Your task to perform on an android device: turn on showing notifications on the lock screen Image 0: 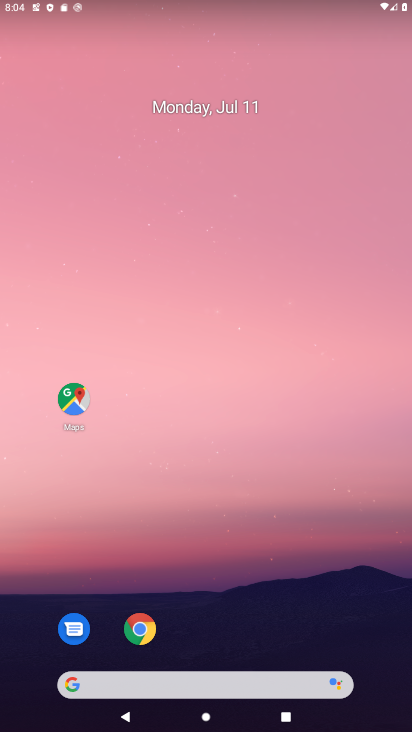
Step 0: drag from (194, 630) to (202, 248)
Your task to perform on an android device: turn on showing notifications on the lock screen Image 1: 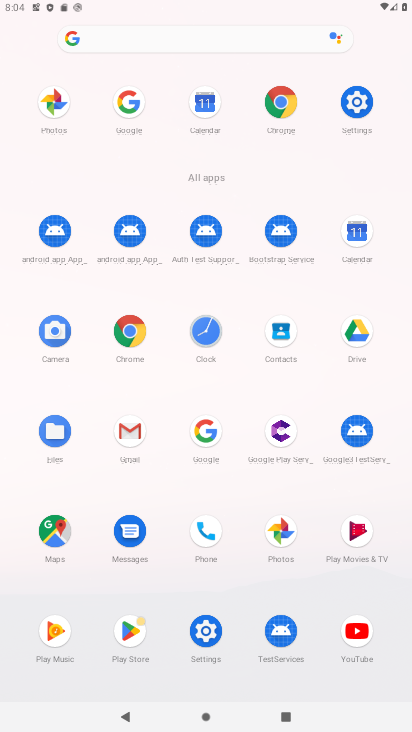
Step 1: click (360, 97)
Your task to perform on an android device: turn on showing notifications on the lock screen Image 2: 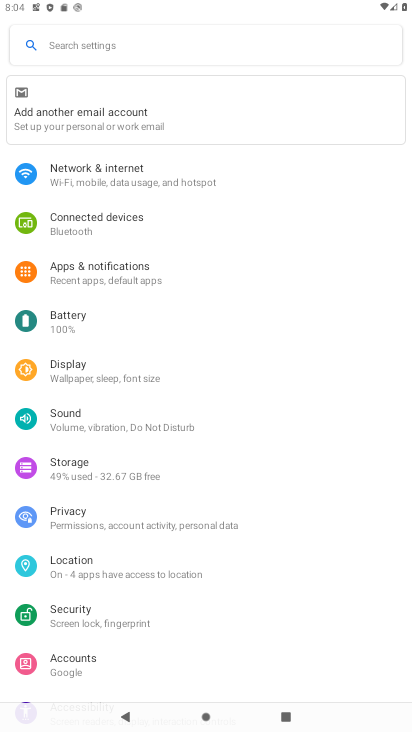
Step 2: click (135, 277)
Your task to perform on an android device: turn on showing notifications on the lock screen Image 3: 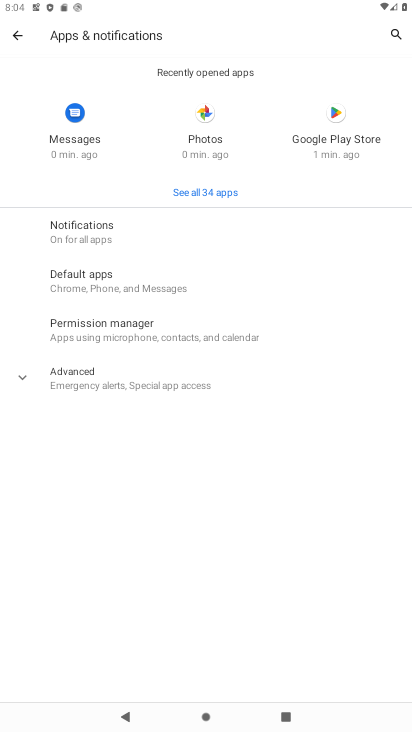
Step 3: click (112, 234)
Your task to perform on an android device: turn on showing notifications on the lock screen Image 4: 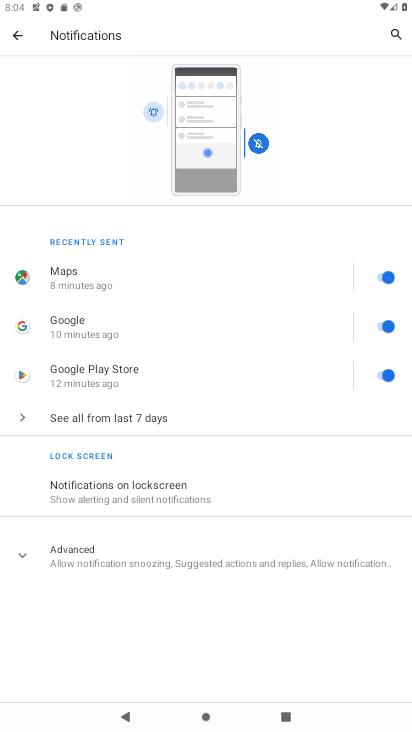
Step 4: click (143, 490)
Your task to perform on an android device: turn on showing notifications on the lock screen Image 5: 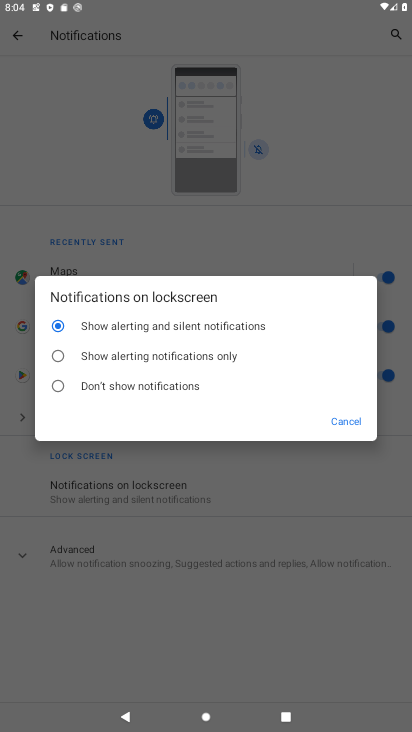
Step 5: task complete